Your task to perform on an android device: Open Google Image 0: 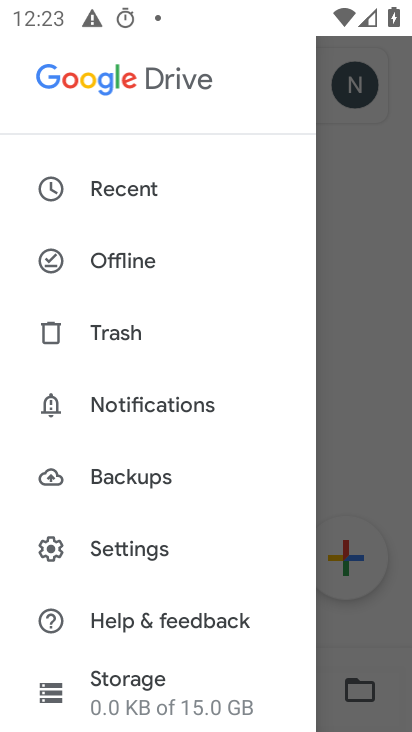
Step 0: press home button
Your task to perform on an android device: Open Google Image 1: 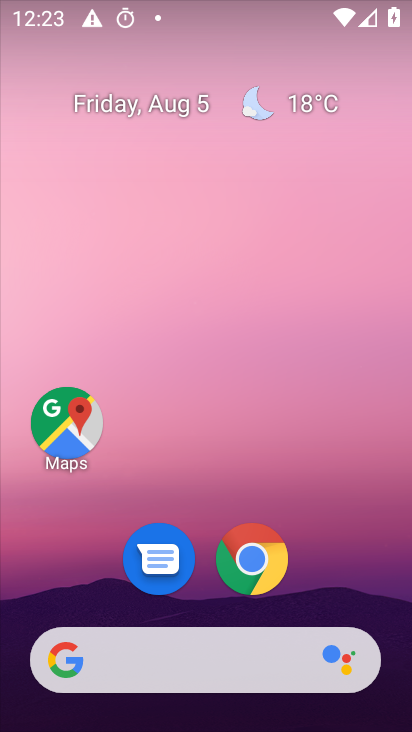
Step 1: click (144, 665)
Your task to perform on an android device: Open Google Image 2: 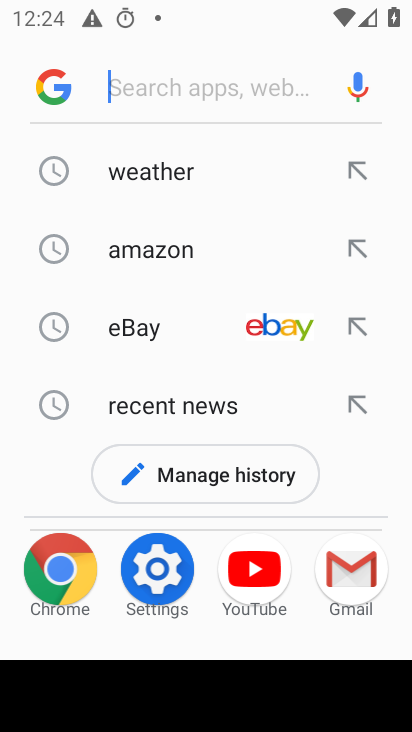
Step 2: task complete